Your task to perform on an android device: turn off improve location accuracy Image 0: 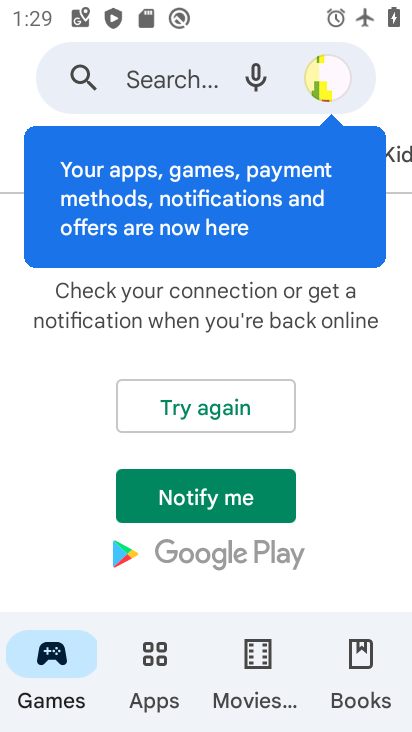
Step 0: press home button
Your task to perform on an android device: turn off improve location accuracy Image 1: 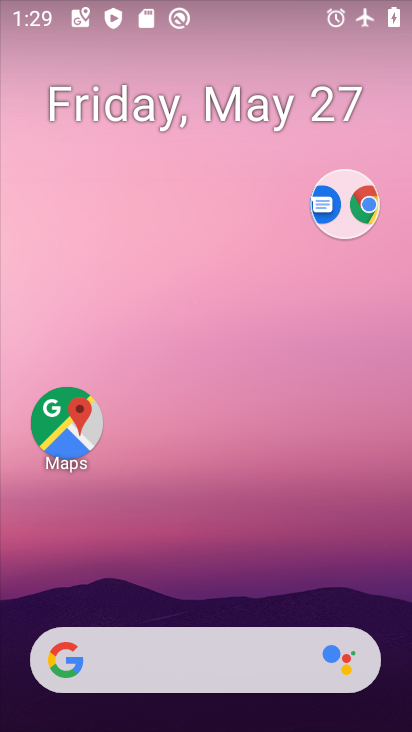
Step 1: drag from (231, 595) to (314, 179)
Your task to perform on an android device: turn off improve location accuracy Image 2: 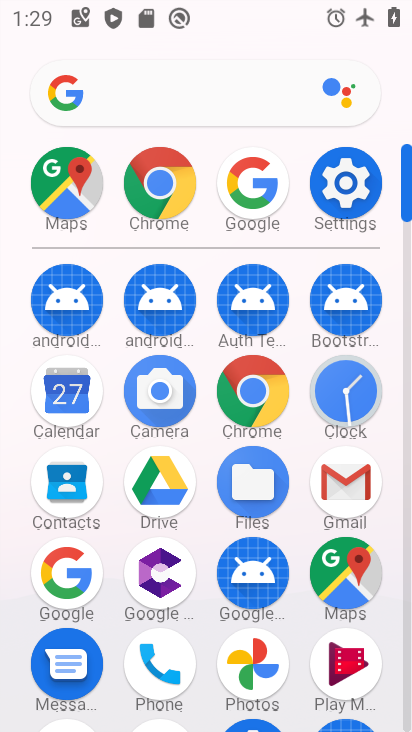
Step 2: click (344, 204)
Your task to perform on an android device: turn off improve location accuracy Image 3: 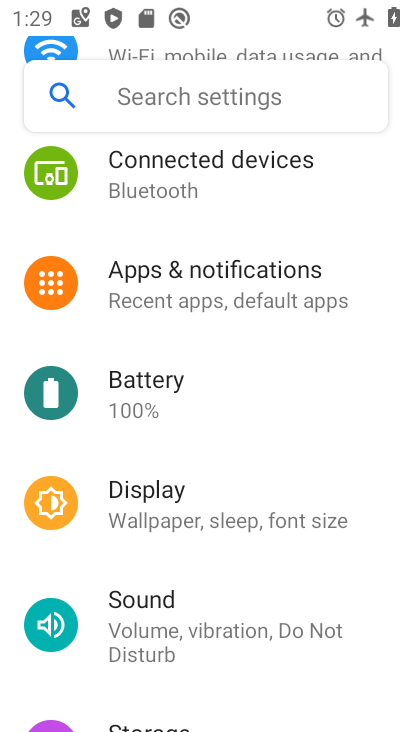
Step 3: drag from (228, 303) to (239, 445)
Your task to perform on an android device: turn off improve location accuracy Image 4: 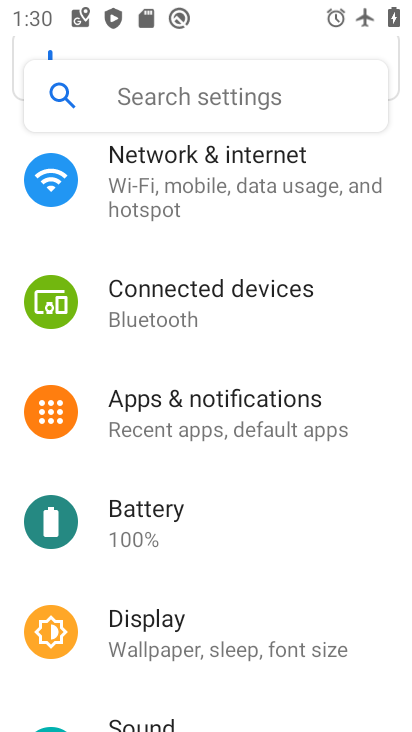
Step 4: drag from (252, 293) to (286, 194)
Your task to perform on an android device: turn off improve location accuracy Image 5: 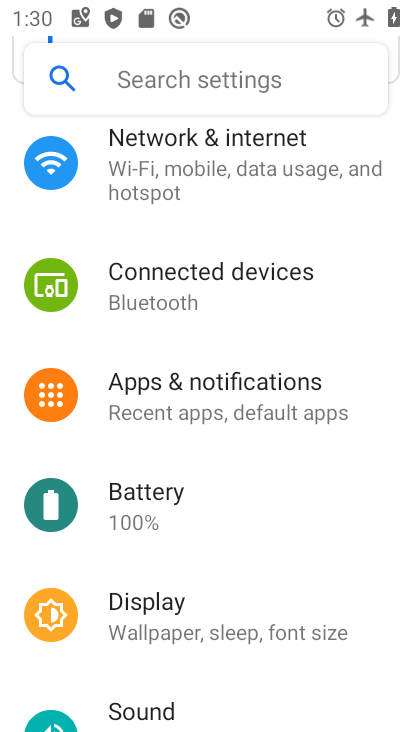
Step 5: drag from (247, 567) to (259, 353)
Your task to perform on an android device: turn off improve location accuracy Image 6: 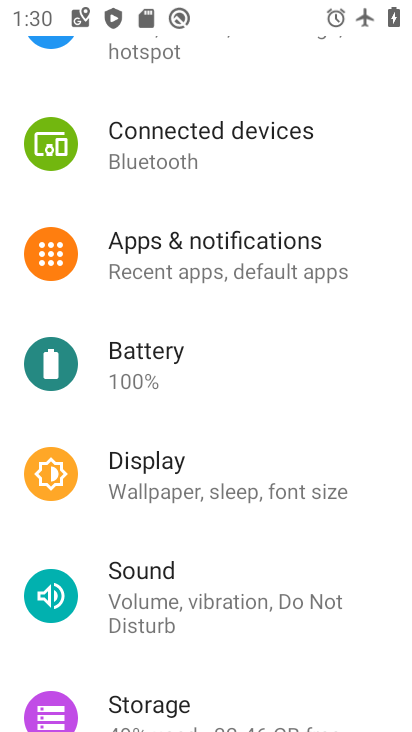
Step 6: drag from (231, 567) to (271, 360)
Your task to perform on an android device: turn off improve location accuracy Image 7: 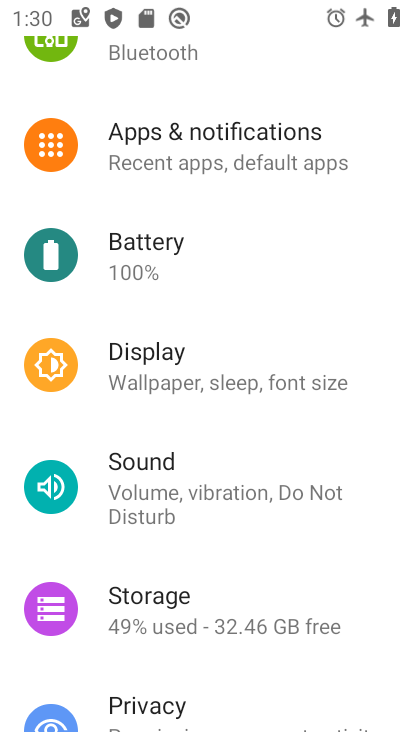
Step 7: drag from (207, 526) to (266, 243)
Your task to perform on an android device: turn off improve location accuracy Image 8: 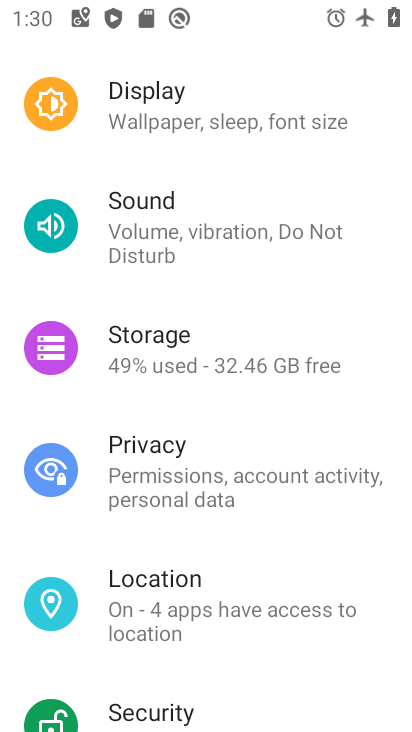
Step 8: click (227, 602)
Your task to perform on an android device: turn off improve location accuracy Image 9: 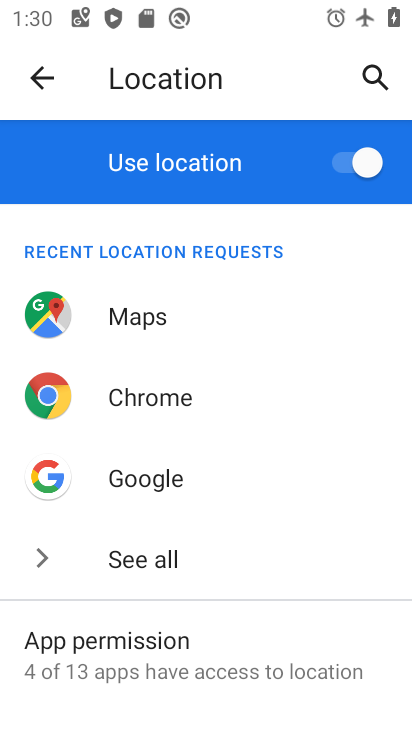
Step 9: drag from (222, 572) to (246, 395)
Your task to perform on an android device: turn off improve location accuracy Image 10: 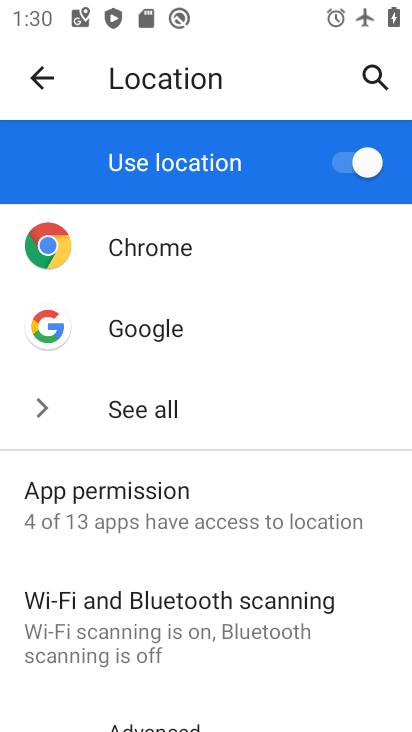
Step 10: drag from (195, 612) to (228, 459)
Your task to perform on an android device: turn off improve location accuracy Image 11: 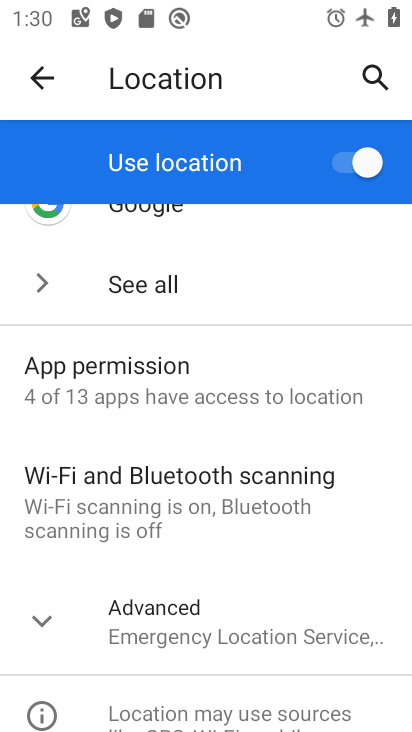
Step 11: click (208, 631)
Your task to perform on an android device: turn off improve location accuracy Image 12: 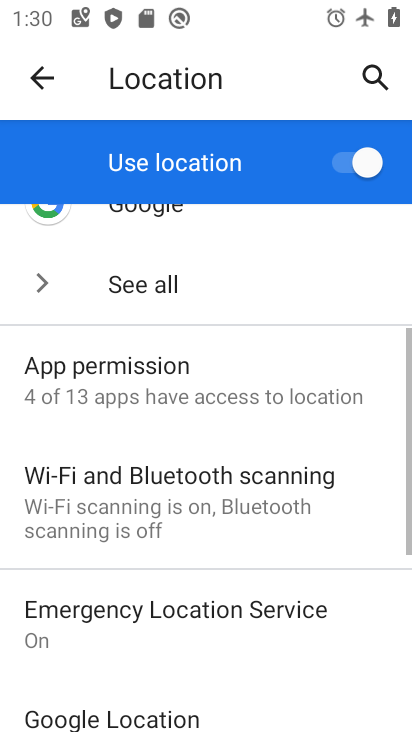
Step 12: drag from (208, 617) to (220, 533)
Your task to perform on an android device: turn off improve location accuracy Image 13: 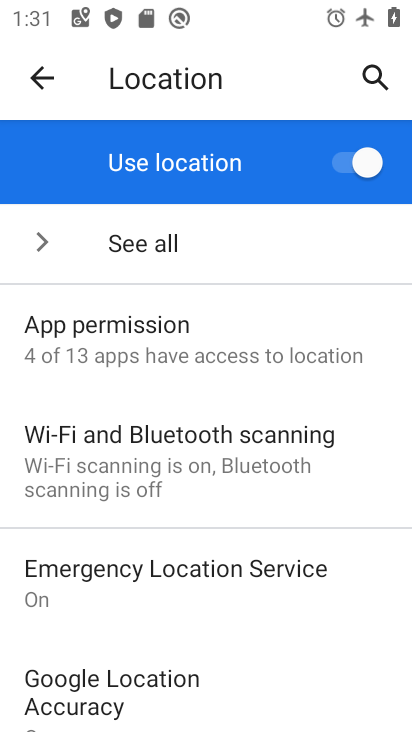
Step 13: drag from (196, 645) to (204, 600)
Your task to perform on an android device: turn off improve location accuracy Image 14: 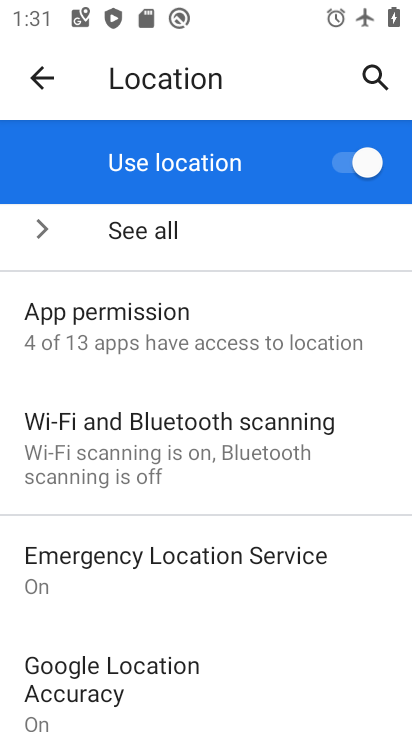
Step 14: drag from (205, 675) to (303, 385)
Your task to perform on an android device: turn off improve location accuracy Image 15: 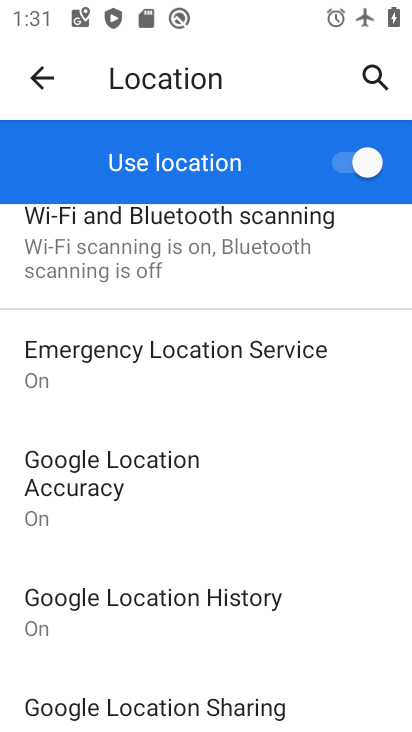
Step 15: click (215, 490)
Your task to perform on an android device: turn off improve location accuracy Image 16: 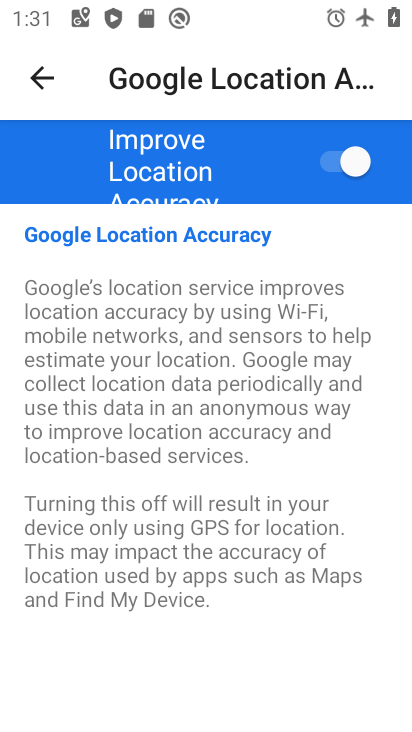
Step 16: click (334, 167)
Your task to perform on an android device: turn off improve location accuracy Image 17: 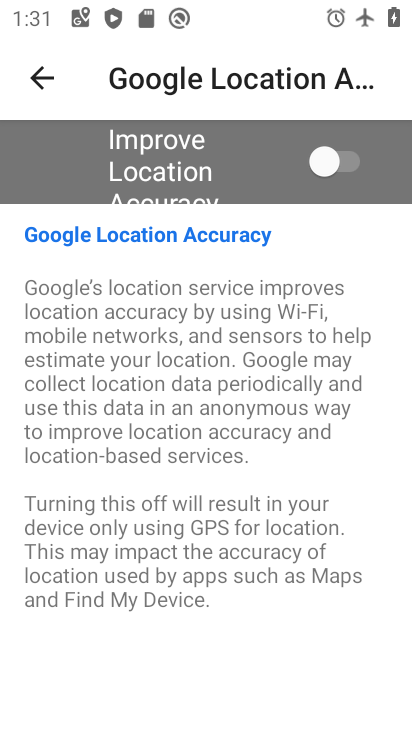
Step 17: task complete